Your task to perform on an android device: toggle show notifications on the lock screen Image 0: 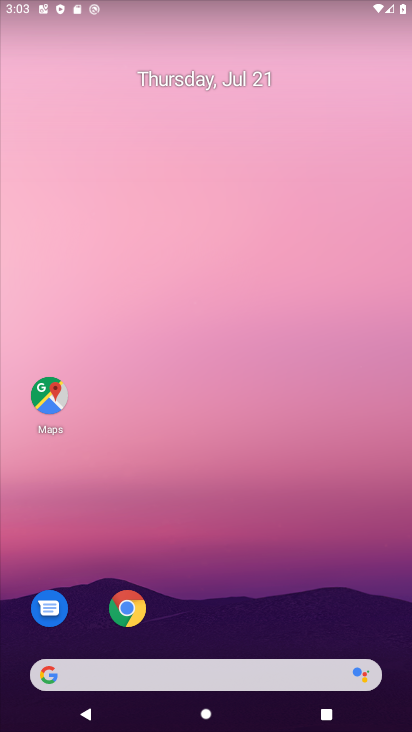
Step 0: drag from (334, 650) to (312, 52)
Your task to perform on an android device: toggle show notifications on the lock screen Image 1: 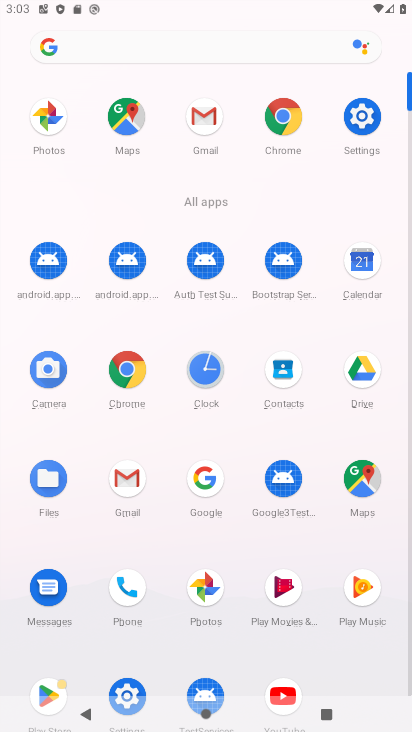
Step 1: click (367, 110)
Your task to perform on an android device: toggle show notifications on the lock screen Image 2: 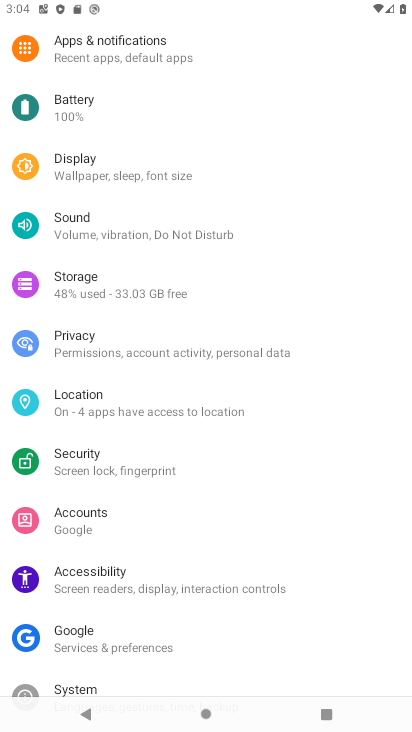
Step 2: click (137, 48)
Your task to perform on an android device: toggle show notifications on the lock screen Image 3: 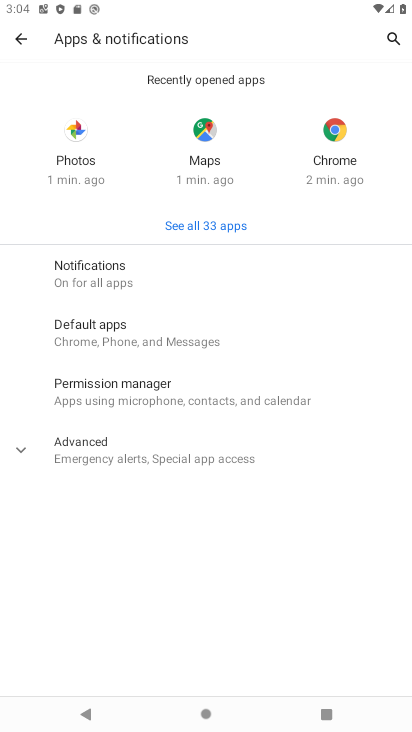
Step 3: click (139, 288)
Your task to perform on an android device: toggle show notifications on the lock screen Image 4: 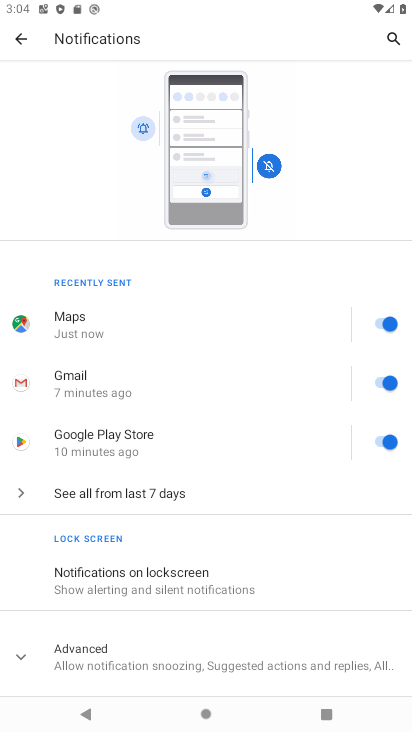
Step 4: click (173, 575)
Your task to perform on an android device: toggle show notifications on the lock screen Image 5: 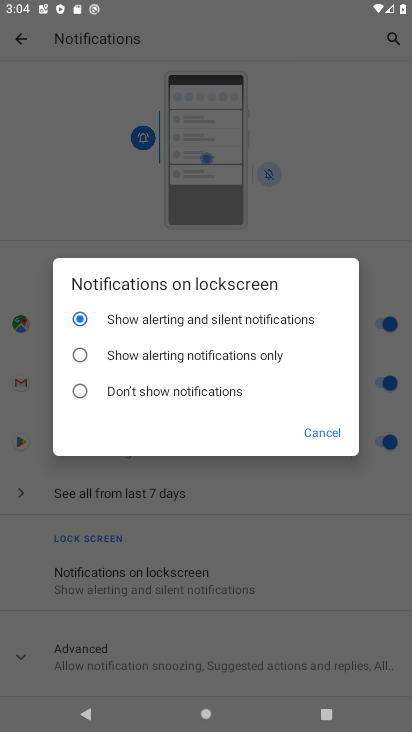
Step 5: click (82, 352)
Your task to perform on an android device: toggle show notifications on the lock screen Image 6: 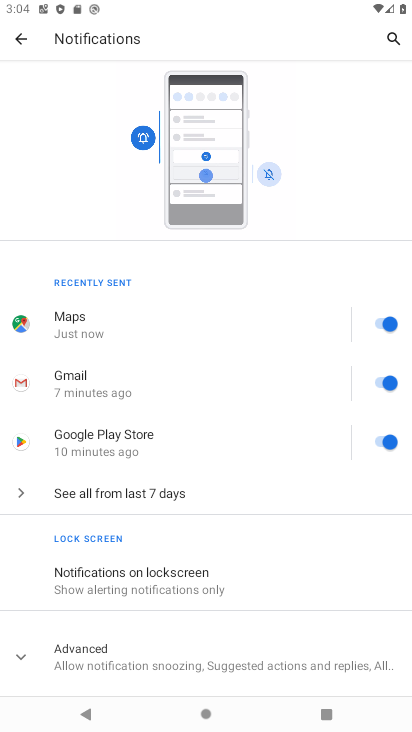
Step 6: task complete